Your task to perform on an android device: delete a single message in the gmail app Image 0: 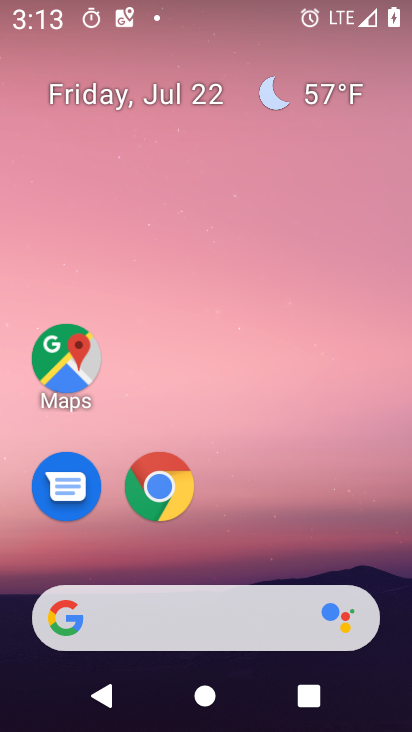
Step 0: press home button
Your task to perform on an android device: delete a single message in the gmail app Image 1: 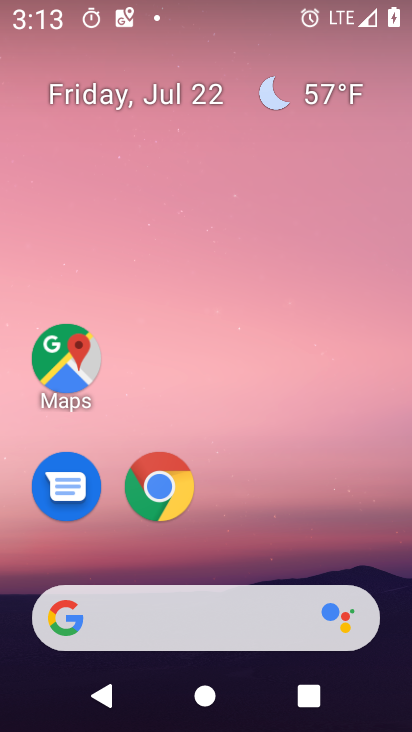
Step 1: drag from (353, 540) to (356, 115)
Your task to perform on an android device: delete a single message in the gmail app Image 2: 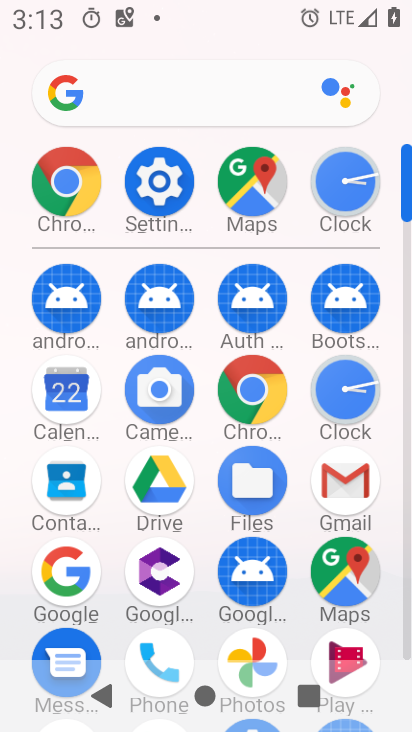
Step 2: click (347, 479)
Your task to perform on an android device: delete a single message in the gmail app Image 3: 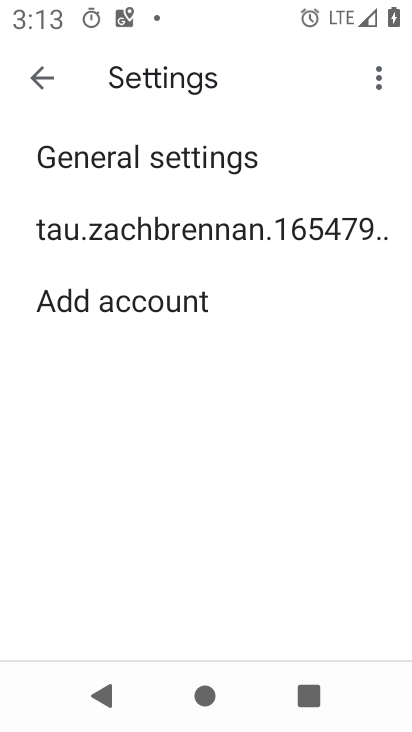
Step 3: press back button
Your task to perform on an android device: delete a single message in the gmail app Image 4: 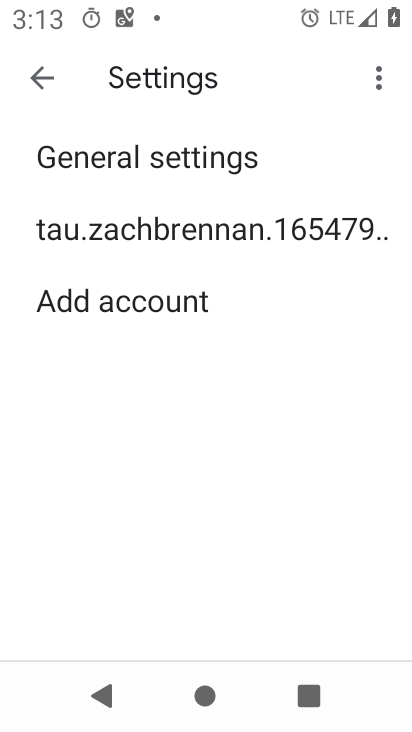
Step 4: click (46, 81)
Your task to perform on an android device: delete a single message in the gmail app Image 5: 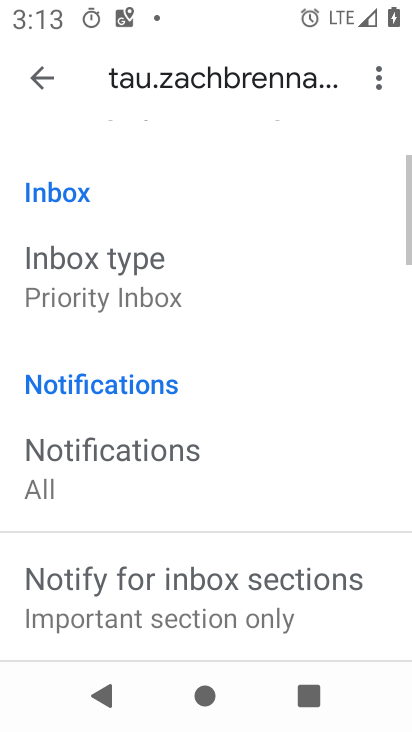
Step 5: click (46, 81)
Your task to perform on an android device: delete a single message in the gmail app Image 6: 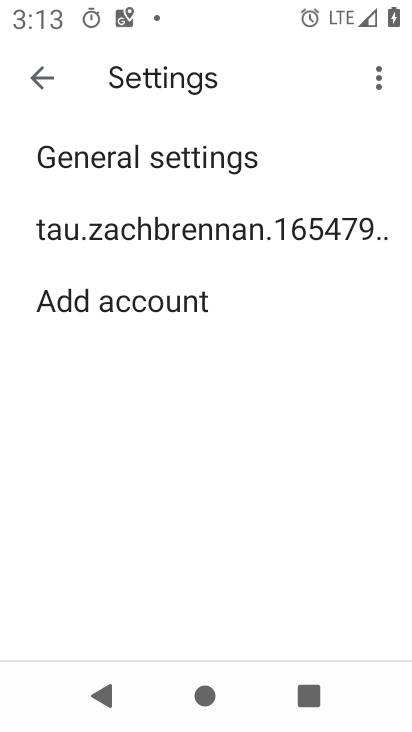
Step 6: click (46, 80)
Your task to perform on an android device: delete a single message in the gmail app Image 7: 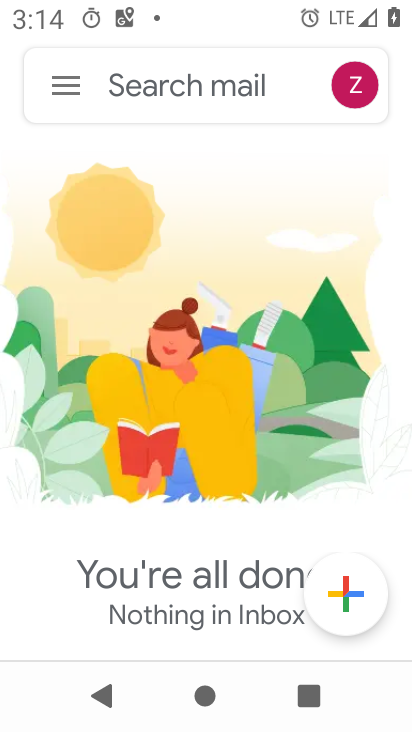
Step 7: task complete